Your task to perform on an android device: Search for flights from Zurich to Helsinki Image 0: 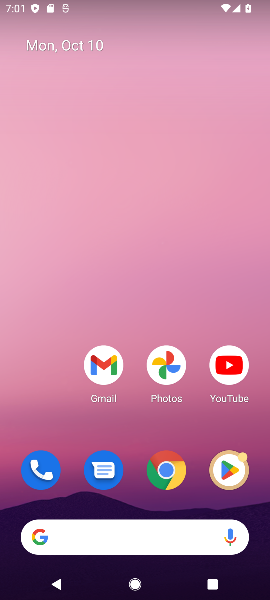
Step 0: click (78, 535)
Your task to perform on an android device: Search for flights from Zurich to Helsinki Image 1: 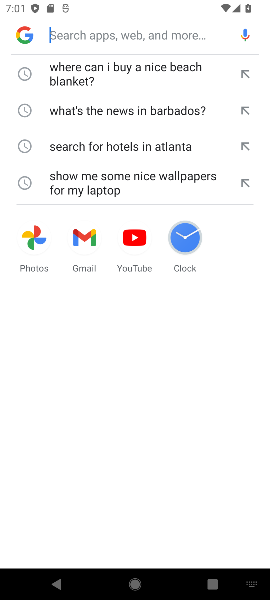
Step 1: type "Search for flights from Zurich to Helsinki"
Your task to perform on an android device: Search for flights from Zurich to Helsinki Image 2: 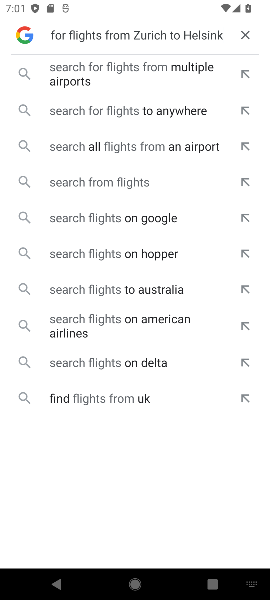
Step 2: type ""
Your task to perform on an android device: Search for flights from Zurich to Helsinki Image 3: 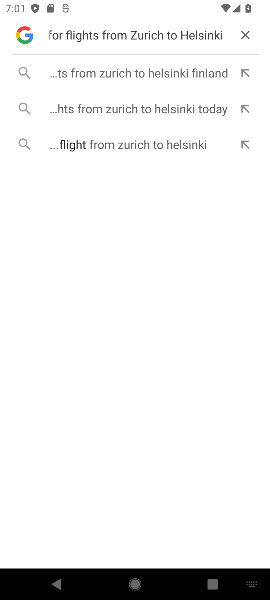
Step 3: click (209, 83)
Your task to perform on an android device: Search for flights from Zurich to Helsinki Image 4: 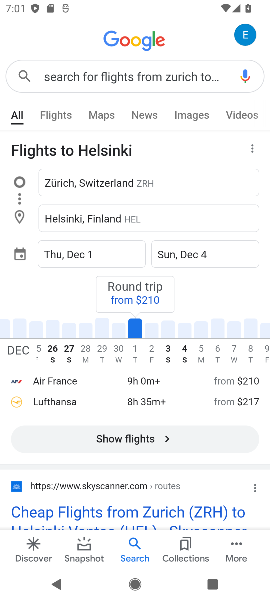
Step 4: click (91, 432)
Your task to perform on an android device: Search for flights from Zurich to Helsinki Image 5: 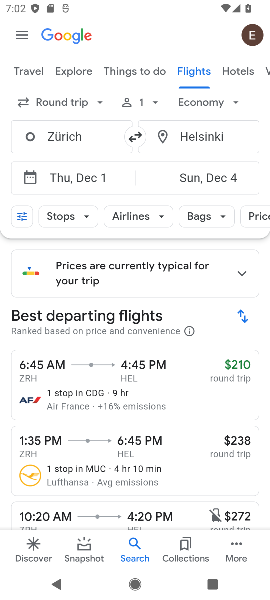
Step 5: task complete